Your task to perform on an android device: clear history in the chrome app Image 0: 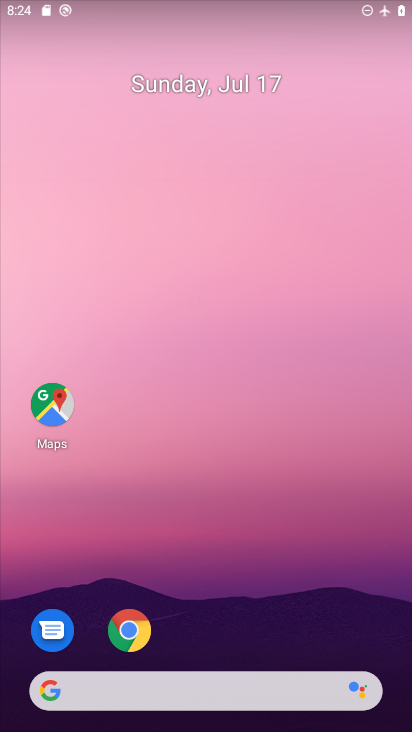
Step 0: drag from (277, 601) to (249, 164)
Your task to perform on an android device: clear history in the chrome app Image 1: 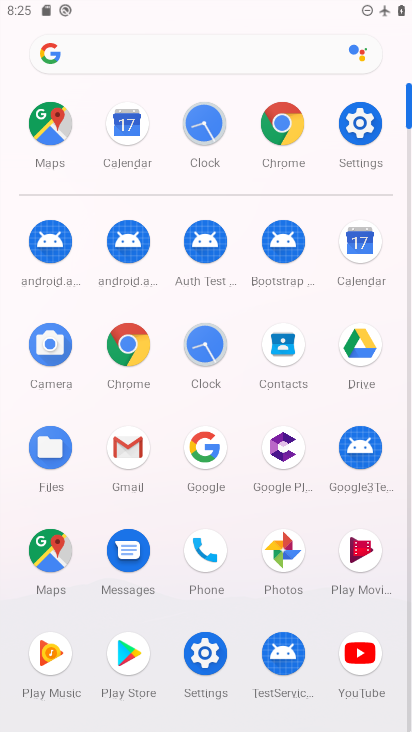
Step 1: click (282, 120)
Your task to perform on an android device: clear history in the chrome app Image 2: 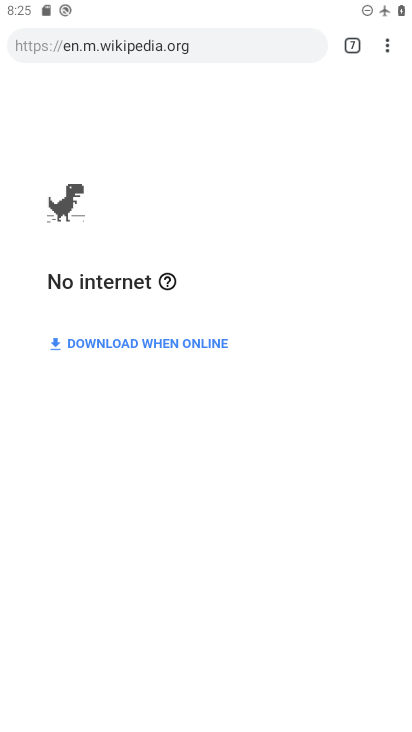
Step 2: click (396, 36)
Your task to perform on an android device: clear history in the chrome app Image 3: 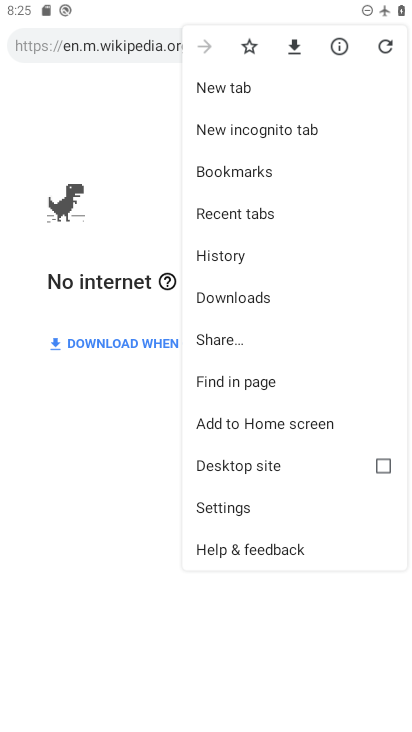
Step 3: click (235, 254)
Your task to perform on an android device: clear history in the chrome app Image 4: 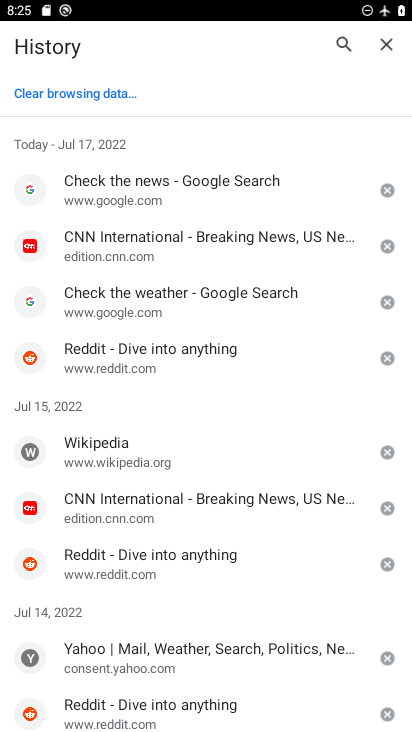
Step 4: click (83, 90)
Your task to perform on an android device: clear history in the chrome app Image 5: 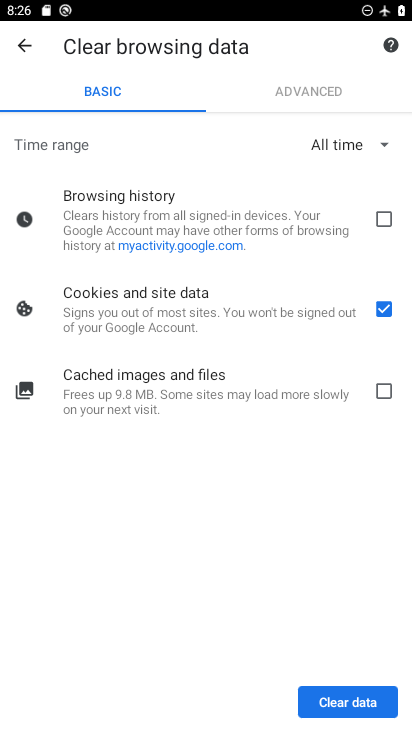
Step 5: click (353, 688)
Your task to perform on an android device: clear history in the chrome app Image 6: 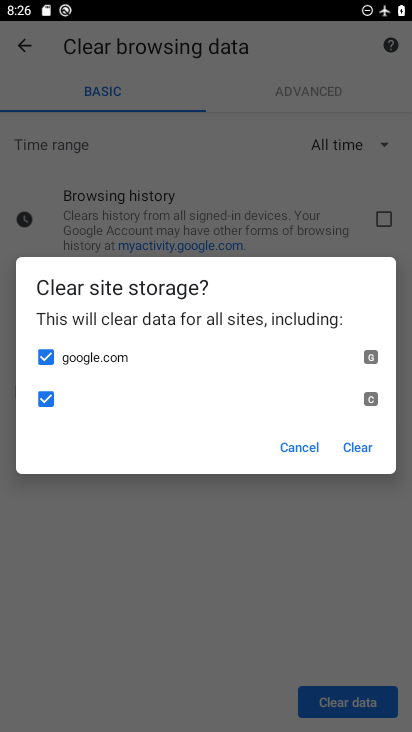
Step 6: task complete